Your task to perform on an android device: snooze an email in the gmail app Image 0: 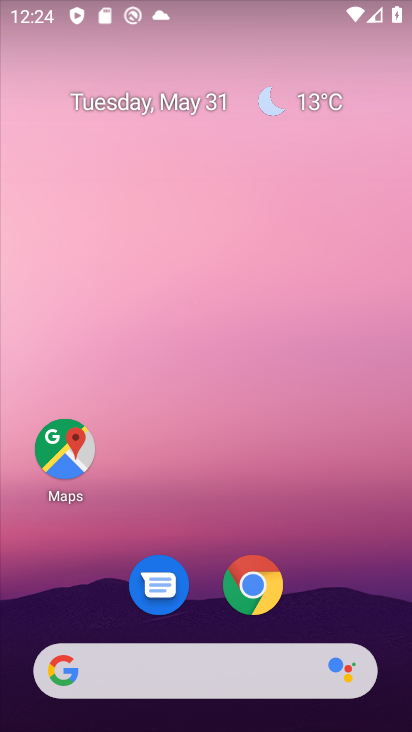
Step 0: drag from (201, 457) to (321, 4)
Your task to perform on an android device: snooze an email in the gmail app Image 1: 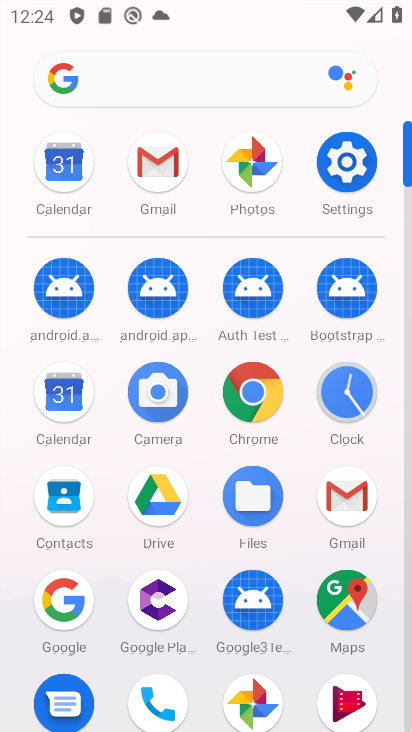
Step 1: click (154, 166)
Your task to perform on an android device: snooze an email in the gmail app Image 2: 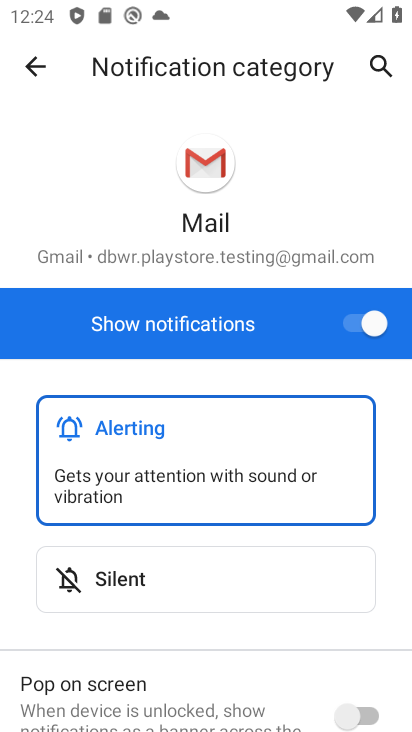
Step 2: click (35, 66)
Your task to perform on an android device: snooze an email in the gmail app Image 3: 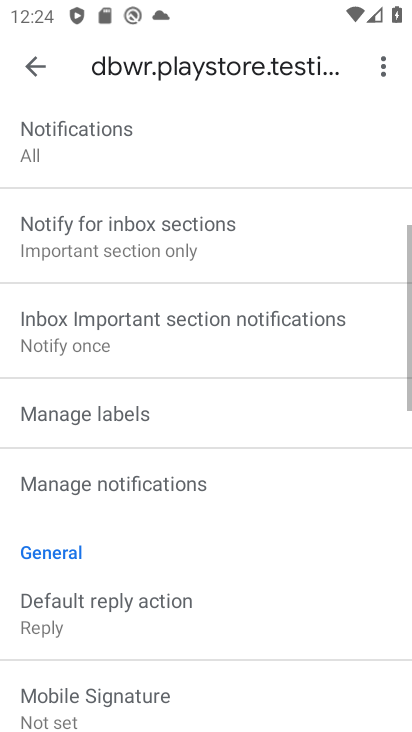
Step 3: click (35, 65)
Your task to perform on an android device: snooze an email in the gmail app Image 4: 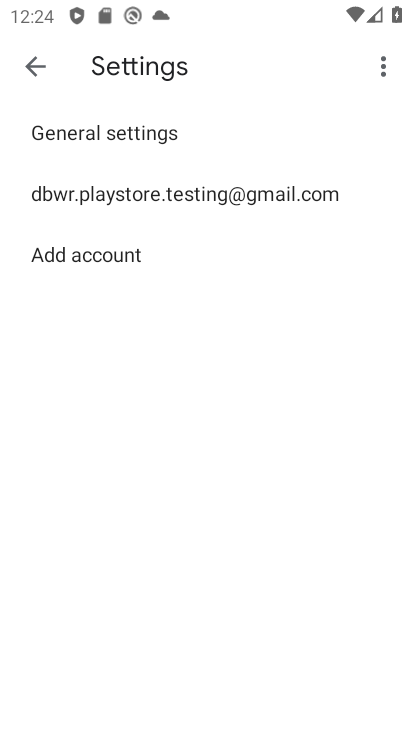
Step 4: click (35, 65)
Your task to perform on an android device: snooze an email in the gmail app Image 5: 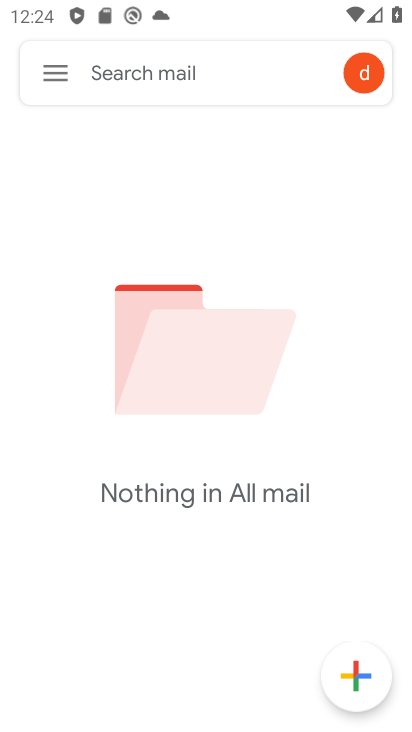
Step 5: task complete